Your task to perform on an android device: create a new album in the google photos Image 0: 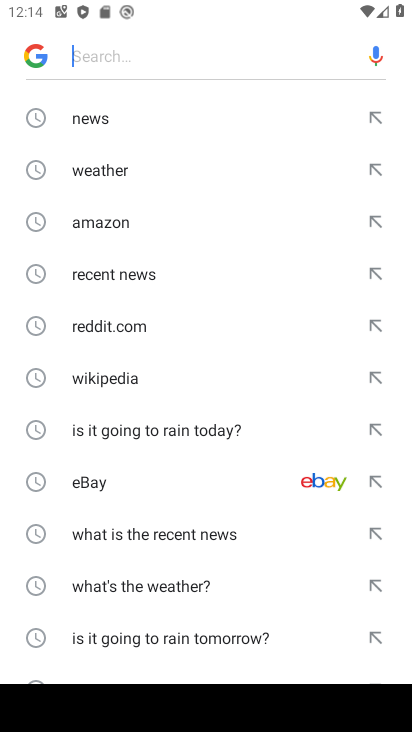
Step 0: press home button
Your task to perform on an android device: create a new album in the google photos Image 1: 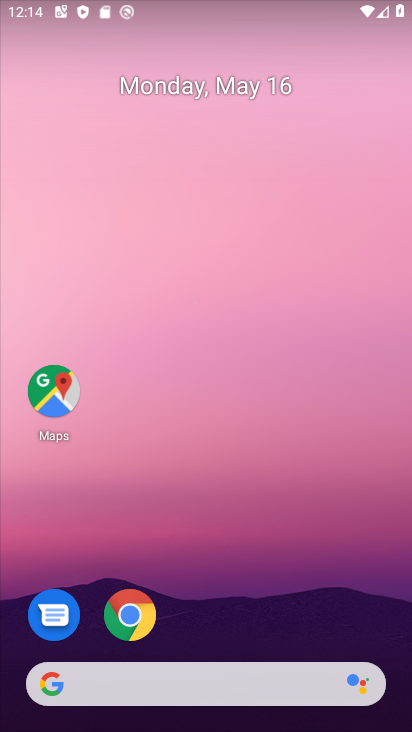
Step 1: drag from (210, 691) to (259, 192)
Your task to perform on an android device: create a new album in the google photos Image 2: 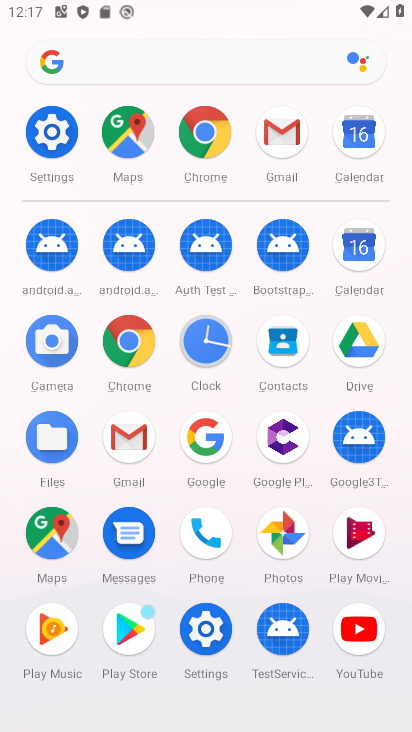
Step 2: press back button
Your task to perform on an android device: create a new album in the google photos Image 3: 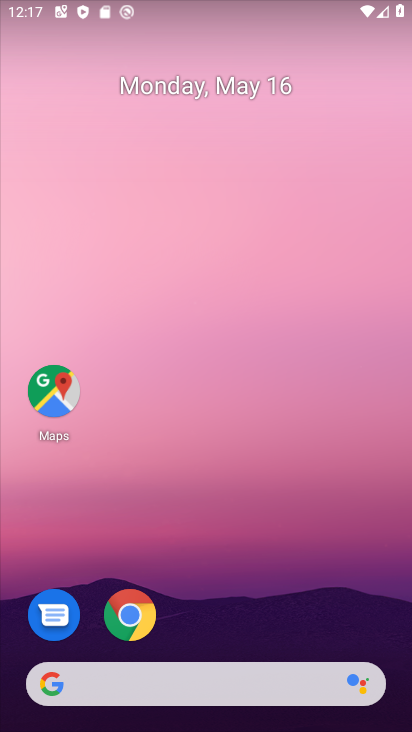
Step 3: drag from (287, 727) to (306, 221)
Your task to perform on an android device: create a new album in the google photos Image 4: 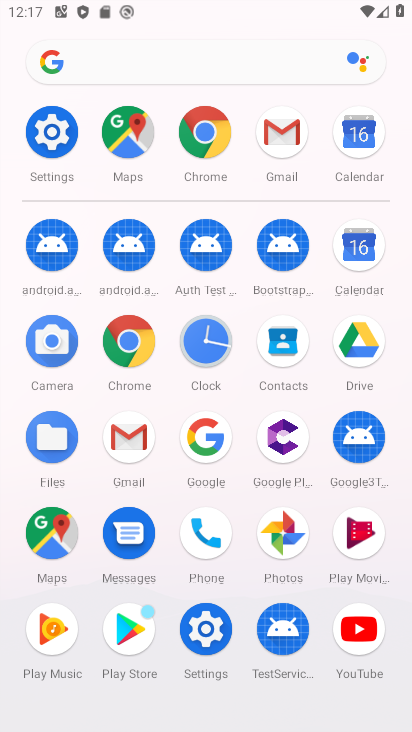
Step 4: click (292, 567)
Your task to perform on an android device: create a new album in the google photos Image 5: 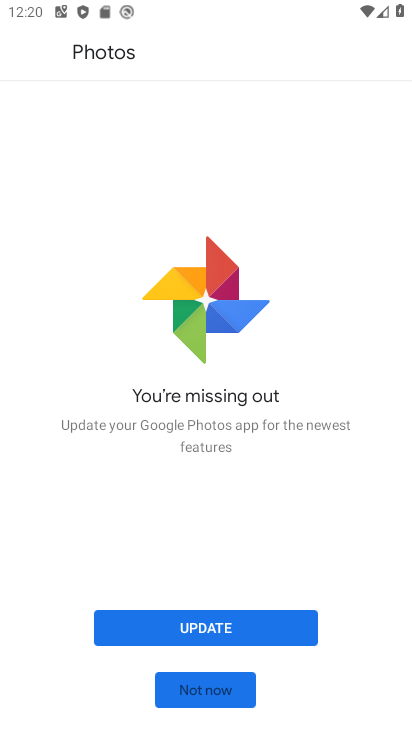
Step 5: click (225, 633)
Your task to perform on an android device: create a new album in the google photos Image 6: 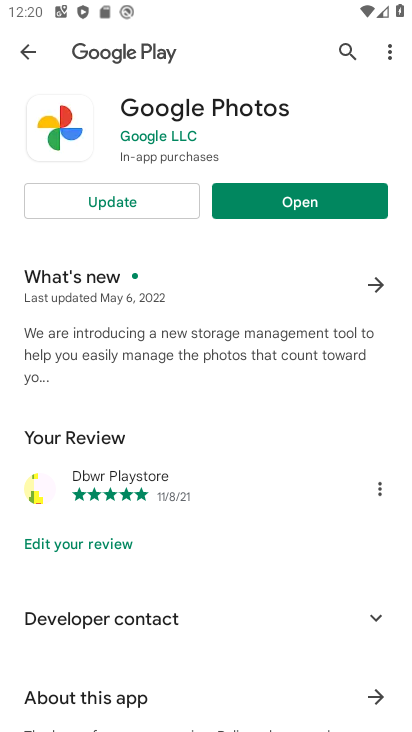
Step 6: click (118, 193)
Your task to perform on an android device: create a new album in the google photos Image 7: 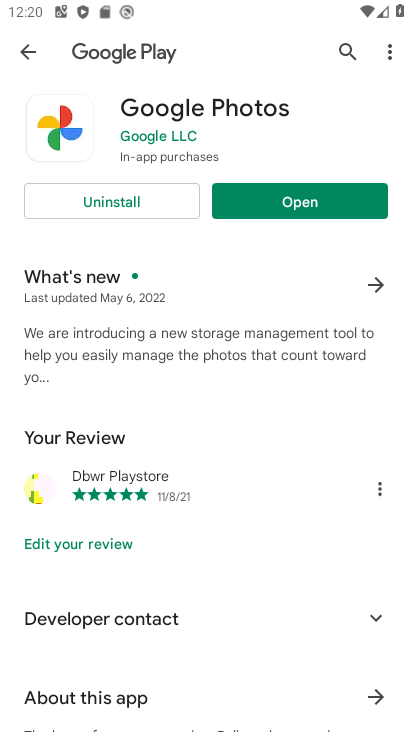
Step 7: click (239, 192)
Your task to perform on an android device: create a new album in the google photos Image 8: 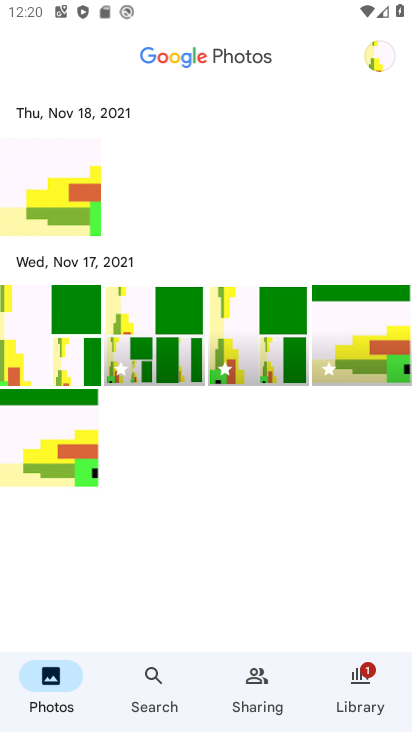
Step 8: click (380, 687)
Your task to perform on an android device: create a new album in the google photos Image 9: 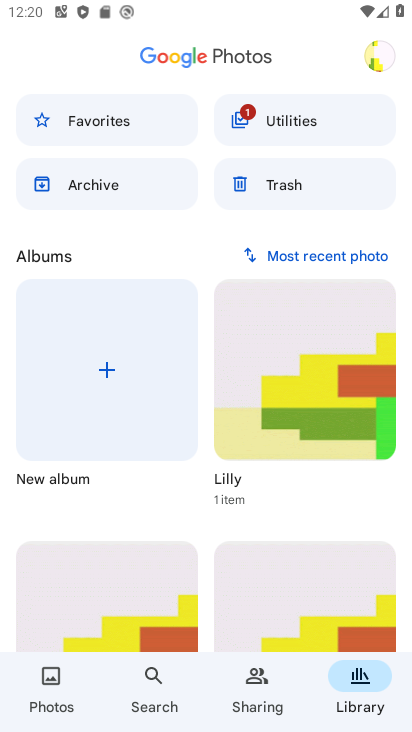
Step 9: click (112, 354)
Your task to perform on an android device: create a new album in the google photos Image 10: 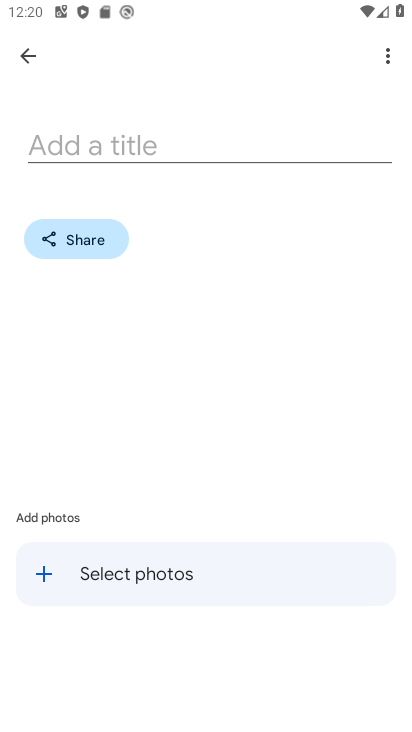
Step 10: click (204, 154)
Your task to perform on an android device: create a new album in the google photos Image 11: 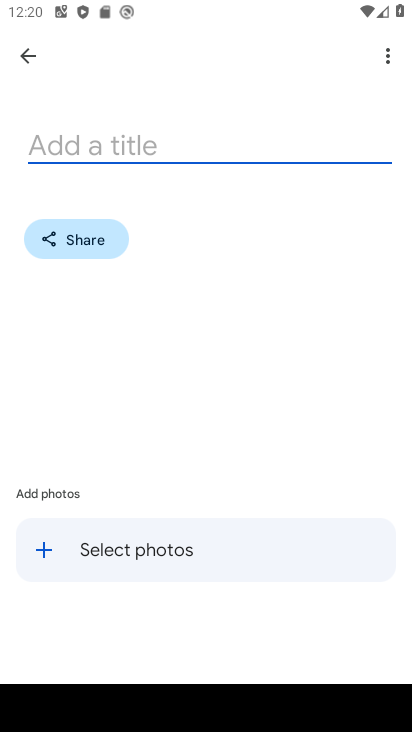
Step 11: type "rfsfdsffs"
Your task to perform on an android device: create a new album in the google photos Image 12: 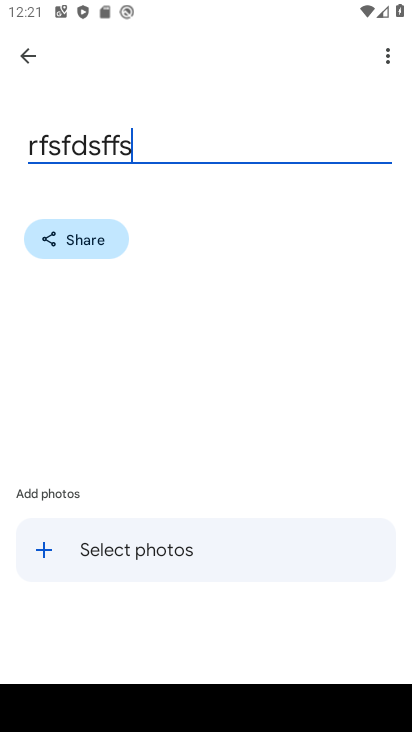
Step 12: click (50, 553)
Your task to perform on an android device: create a new album in the google photos Image 13: 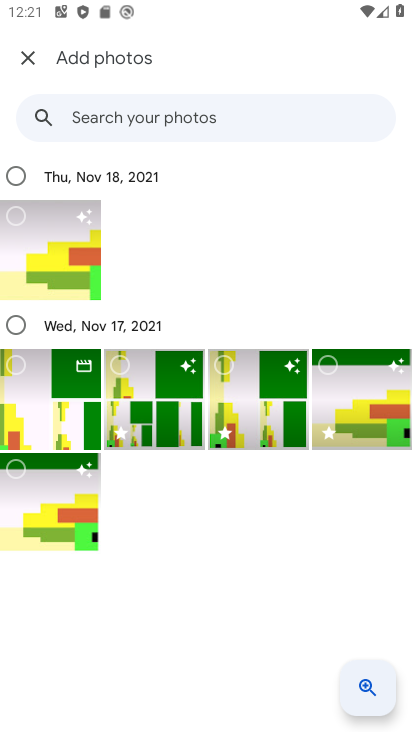
Step 13: click (90, 431)
Your task to perform on an android device: create a new album in the google photos Image 14: 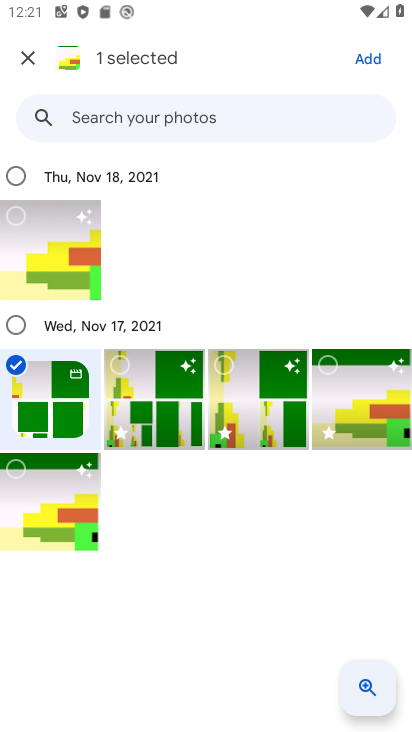
Step 14: task complete